Your task to perform on an android device: Go to network settings Image 0: 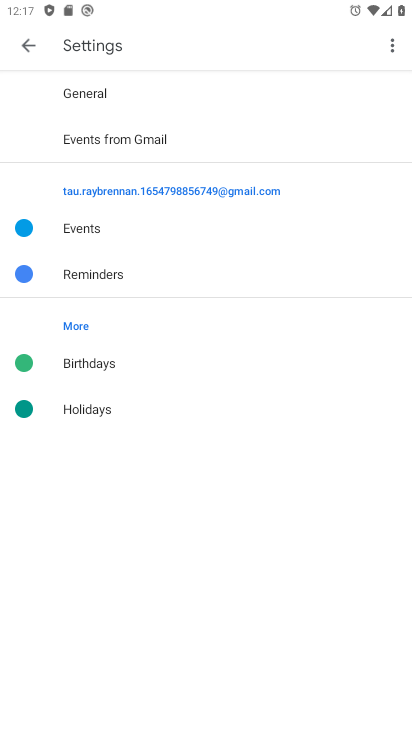
Step 0: drag from (202, 569) to (184, 45)
Your task to perform on an android device: Go to network settings Image 1: 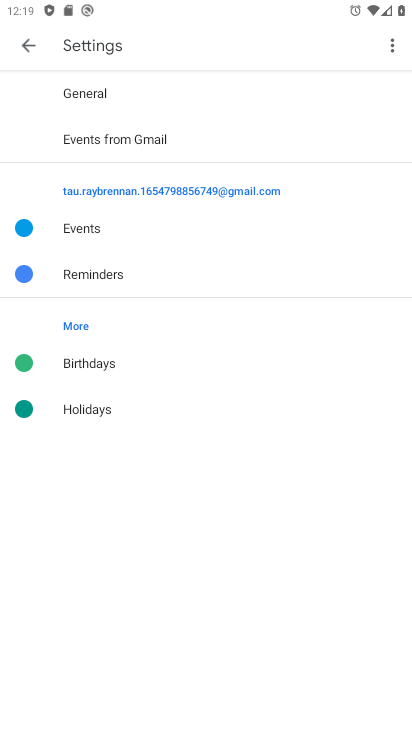
Step 1: click (23, 49)
Your task to perform on an android device: Go to network settings Image 2: 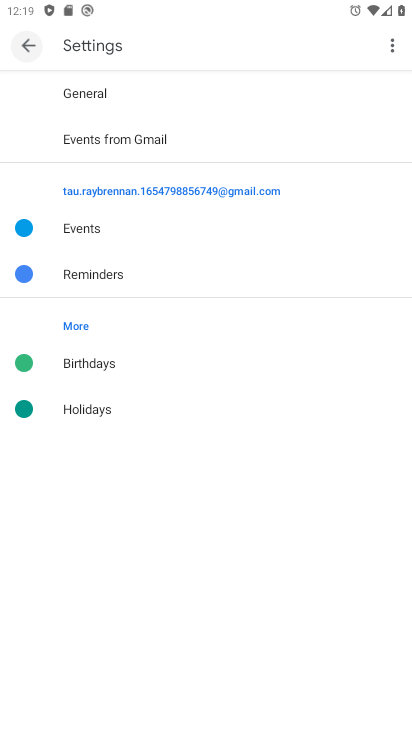
Step 2: click (23, 49)
Your task to perform on an android device: Go to network settings Image 3: 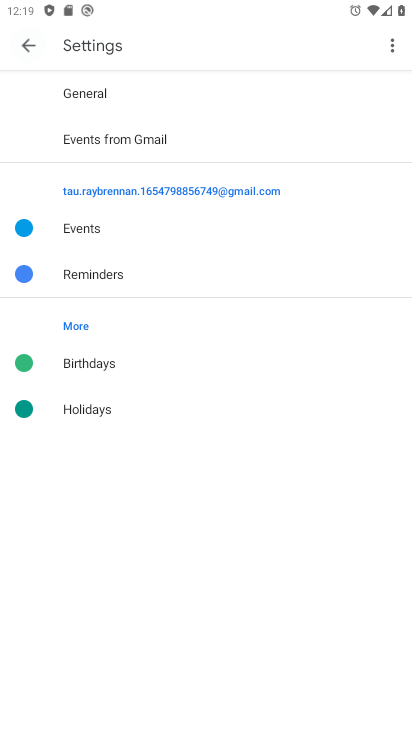
Step 3: click (23, 49)
Your task to perform on an android device: Go to network settings Image 4: 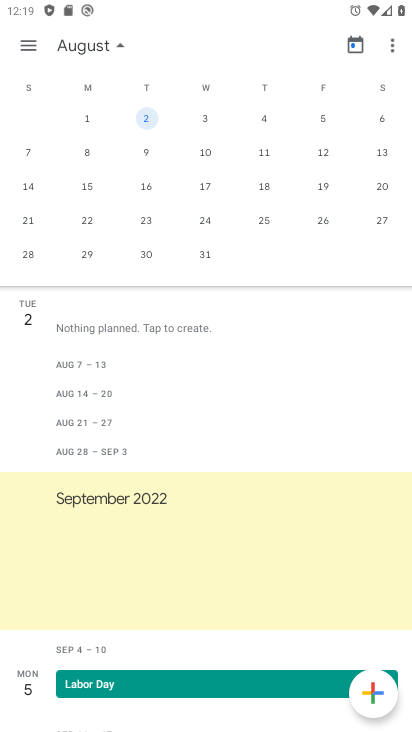
Step 4: press back button
Your task to perform on an android device: Go to network settings Image 5: 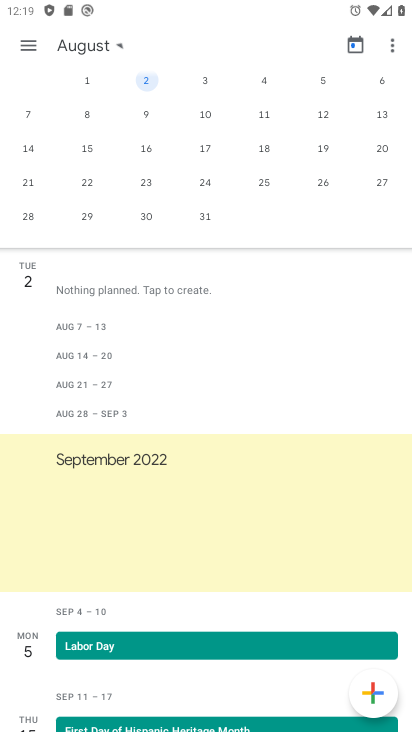
Step 5: press back button
Your task to perform on an android device: Go to network settings Image 6: 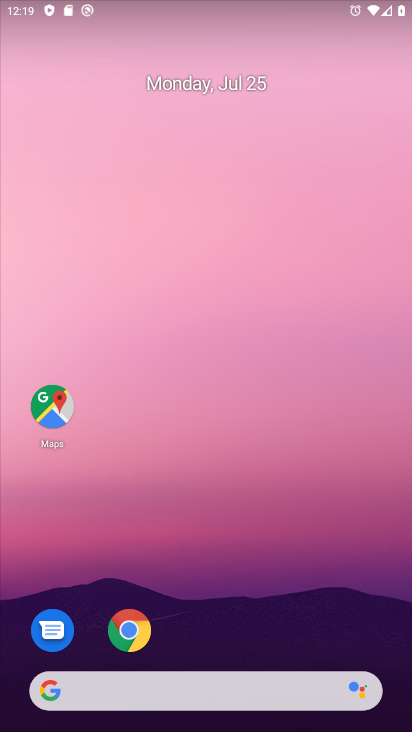
Step 6: drag from (242, 501) to (185, 120)
Your task to perform on an android device: Go to network settings Image 7: 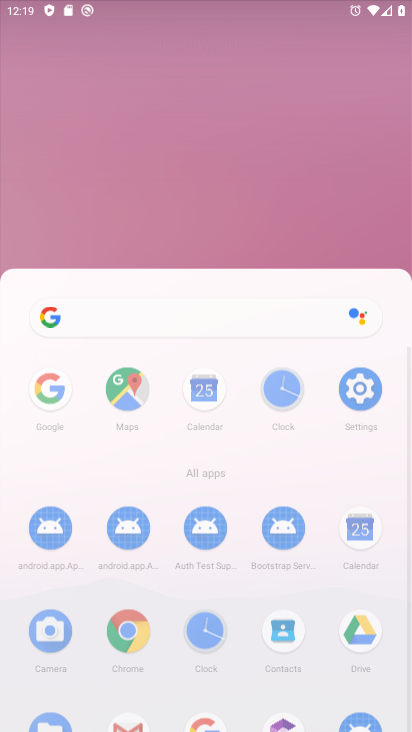
Step 7: drag from (276, 605) to (239, 208)
Your task to perform on an android device: Go to network settings Image 8: 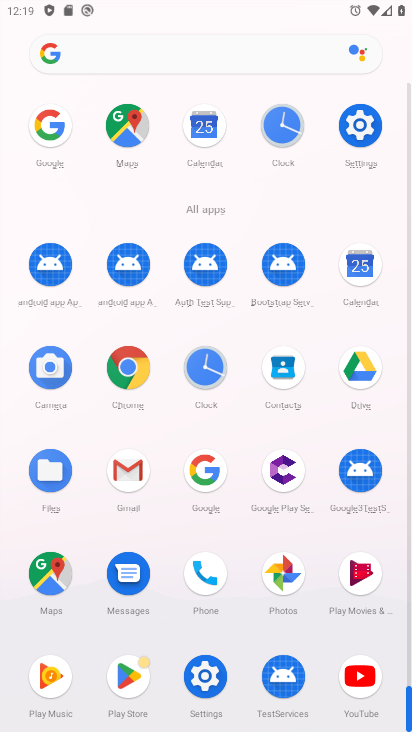
Step 8: drag from (234, 572) to (234, 199)
Your task to perform on an android device: Go to network settings Image 9: 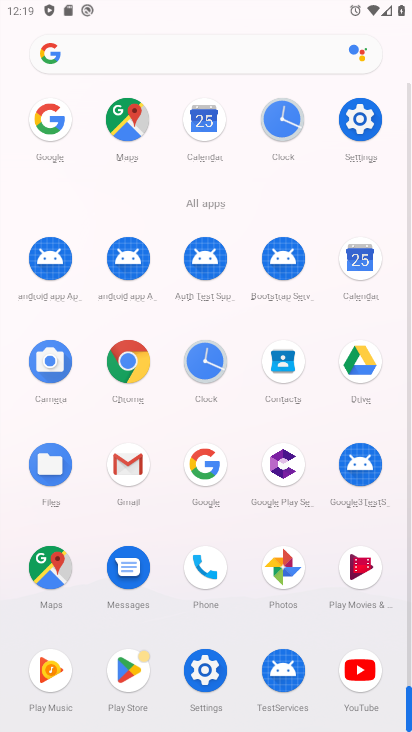
Step 9: click (365, 125)
Your task to perform on an android device: Go to network settings Image 10: 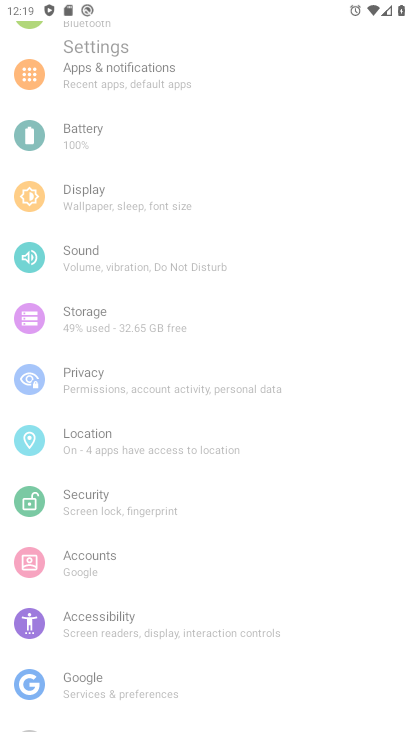
Step 10: click (366, 125)
Your task to perform on an android device: Go to network settings Image 11: 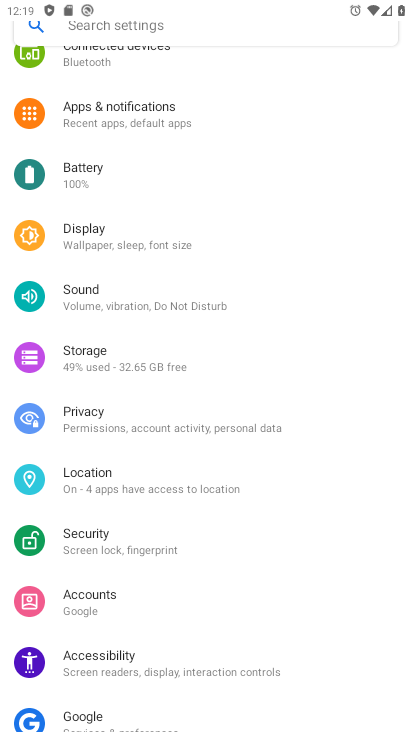
Step 11: drag from (87, 570) to (87, 159)
Your task to perform on an android device: Go to network settings Image 12: 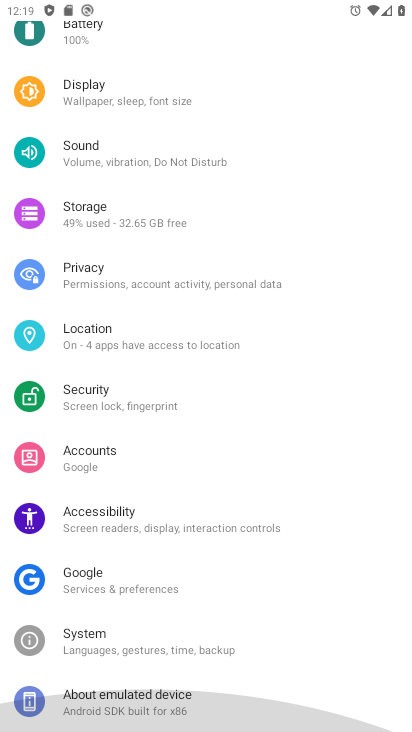
Step 12: drag from (143, 493) to (144, 297)
Your task to perform on an android device: Go to network settings Image 13: 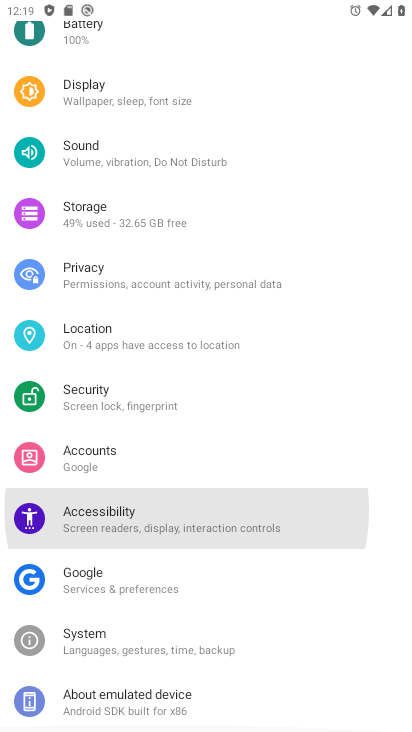
Step 13: drag from (145, 293) to (173, 672)
Your task to perform on an android device: Go to network settings Image 14: 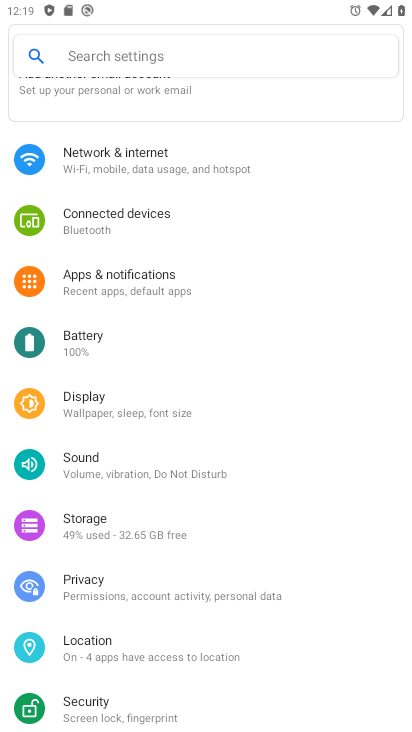
Step 14: drag from (125, 199) to (163, 469)
Your task to perform on an android device: Go to network settings Image 15: 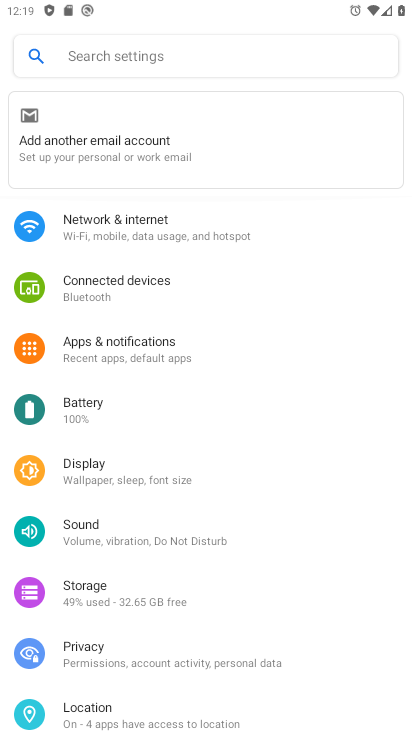
Step 15: drag from (145, 663) to (104, 504)
Your task to perform on an android device: Go to network settings Image 16: 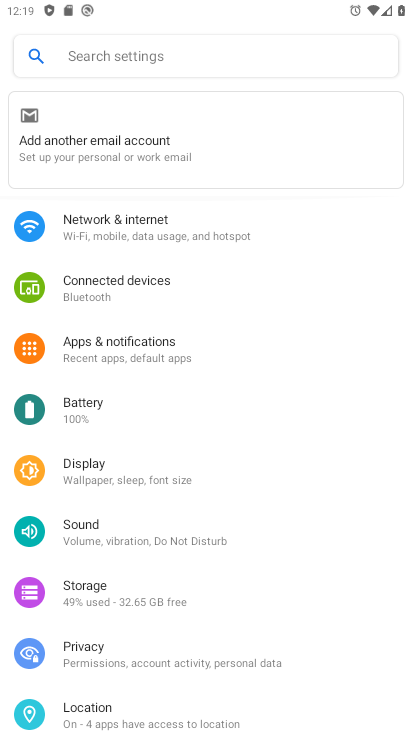
Step 16: click (119, 229)
Your task to perform on an android device: Go to network settings Image 17: 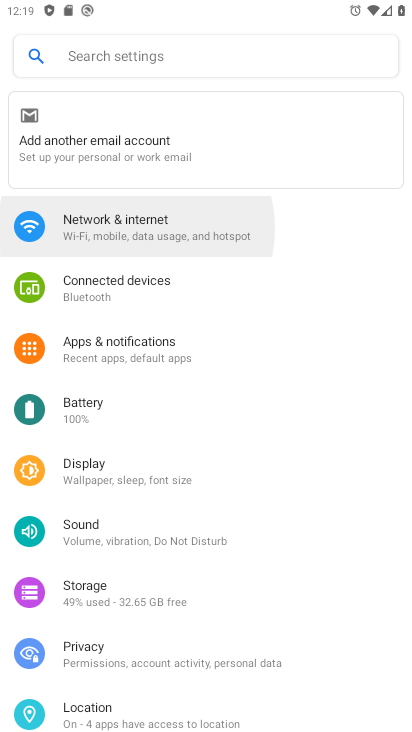
Step 17: click (116, 229)
Your task to perform on an android device: Go to network settings Image 18: 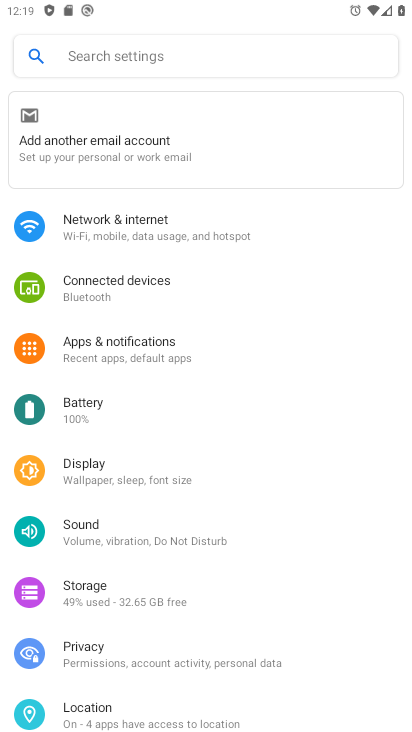
Step 18: click (117, 232)
Your task to perform on an android device: Go to network settings Image 19: 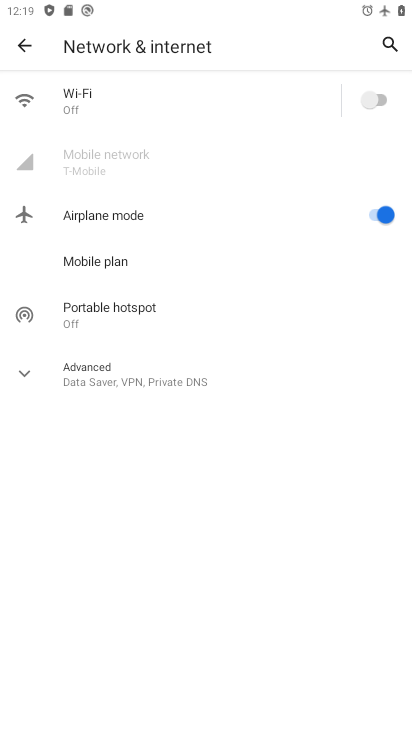
Step 19: click (366, 93)
Your task to perform on an android device: Go to network settings Image 20: 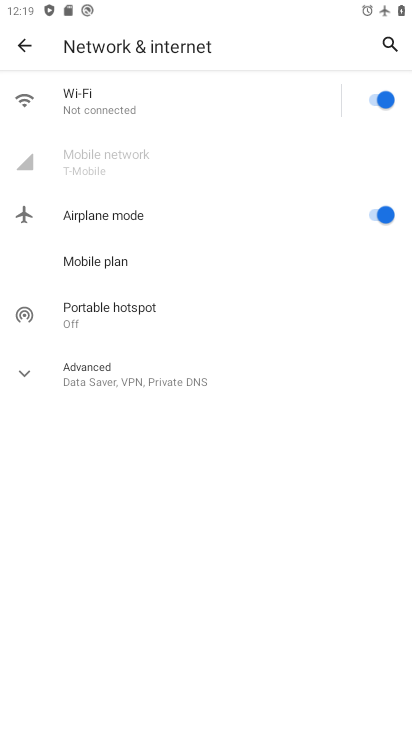
Step 20: task complete